Your task to perform on an android device: Show me the best basketball shoes on Nike.com Image 0: 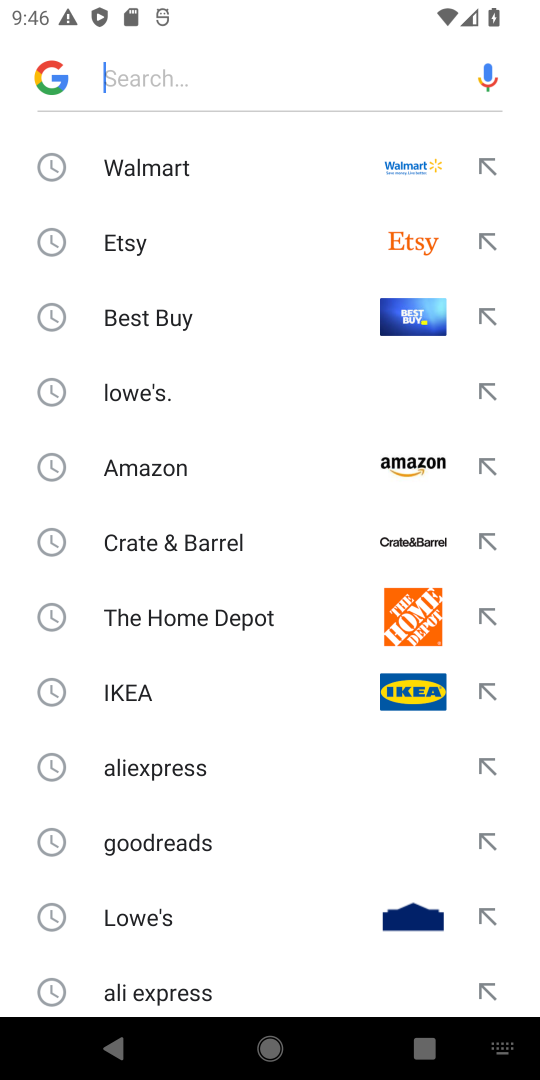
Step 0: type "Nike.com"
Your task to perform on an android device: Show me the best basketball shoes on Nike.com Image 1: 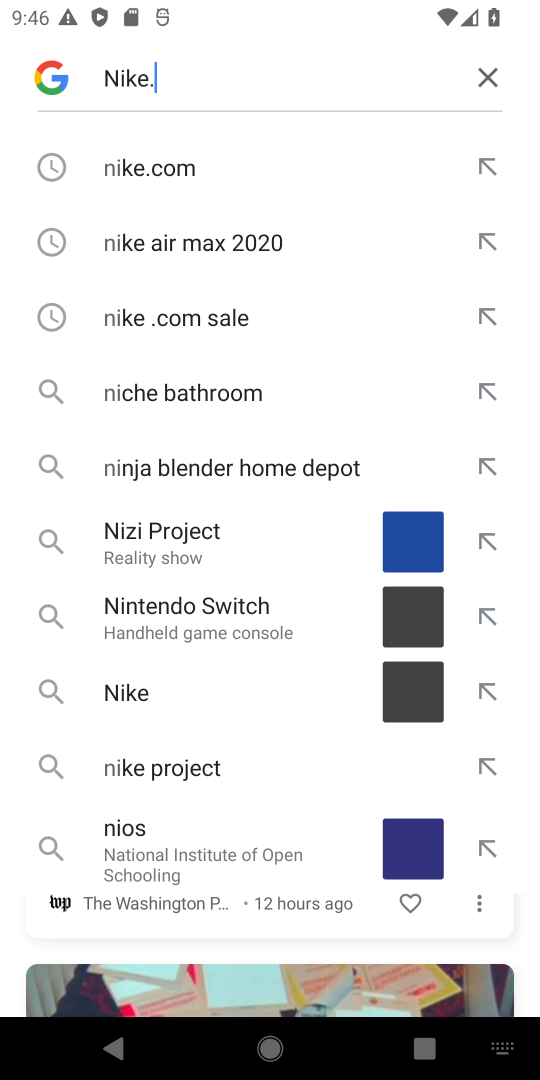
Step 1: press enter
Your task to perform on an android device: Show me the best basketball shoes on Nike.com Image 2: 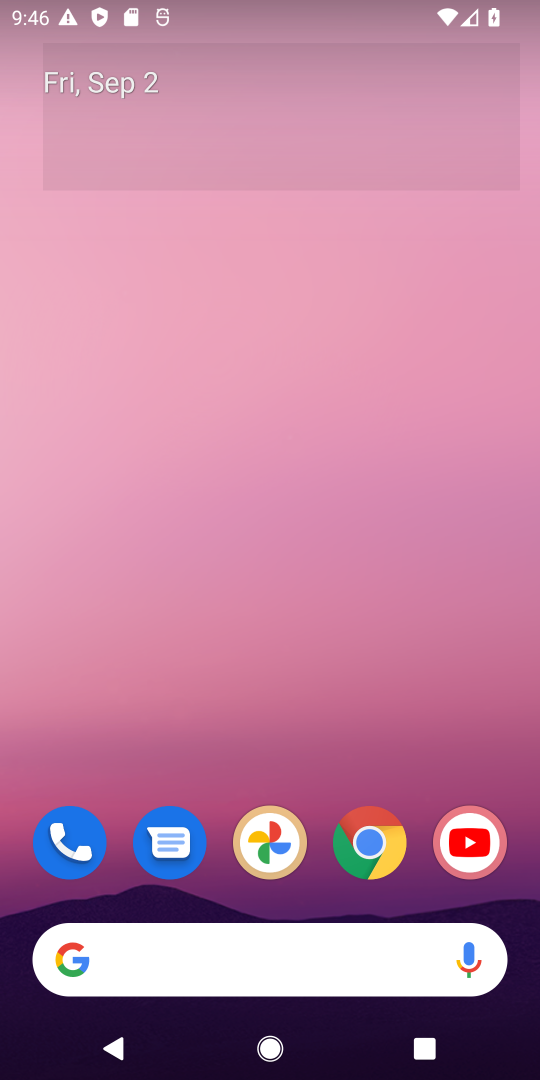
Step 2: drag from (262, 887) to (270, 289)
Your task to perform on an android device: Show me the best basketball shoes on Nike.com Image 3: 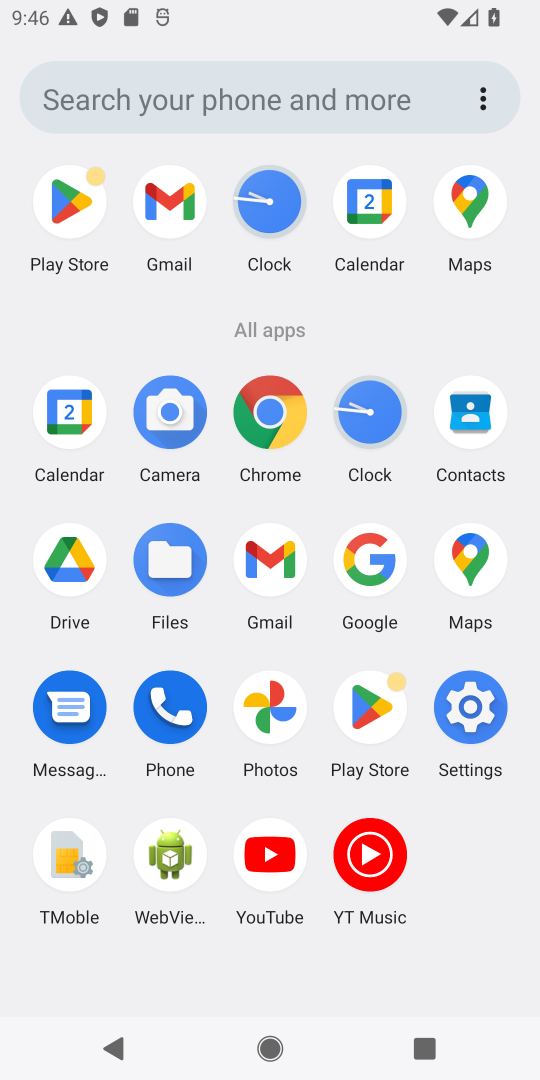
Step 3: click (280, 410)
Your task to perform on an android device: Show me the best basketball shoes on Nike.com Image 4: 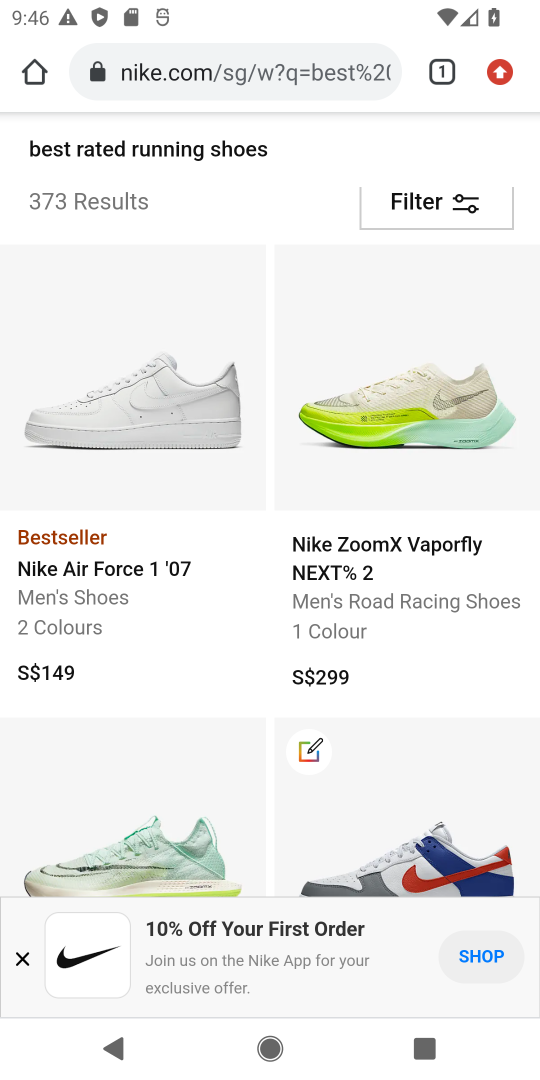
Step 4: drag from (217, 193) to (252, 518)
Your task to perform on an android device: Show me the best basketball shoes on Nike.com Image 5: 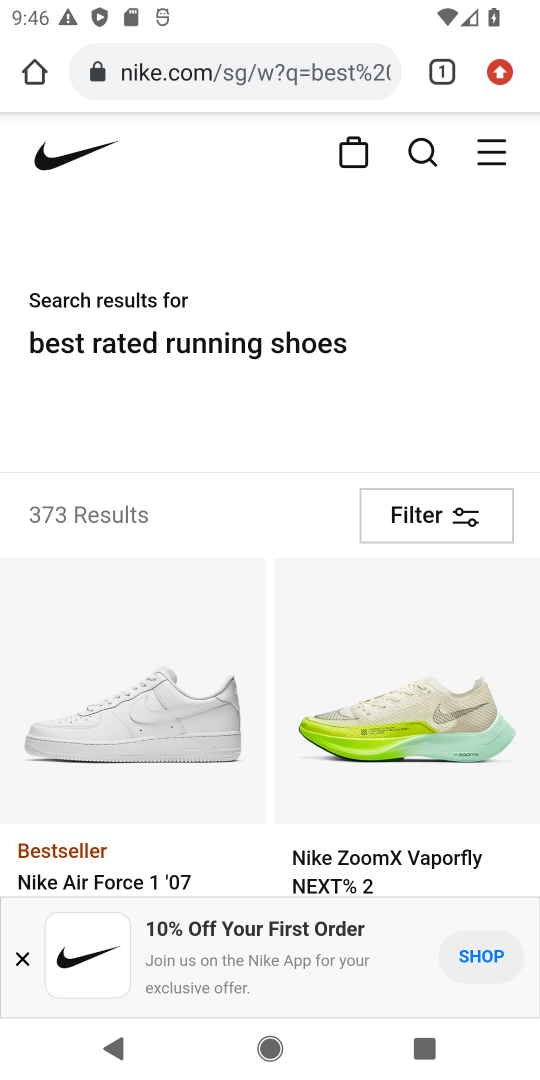
Step 5: drag from (227, 215) to (175, 615)
Your task to perform on an android device: Show me the best basketball shoes on Nike.com Image 6: 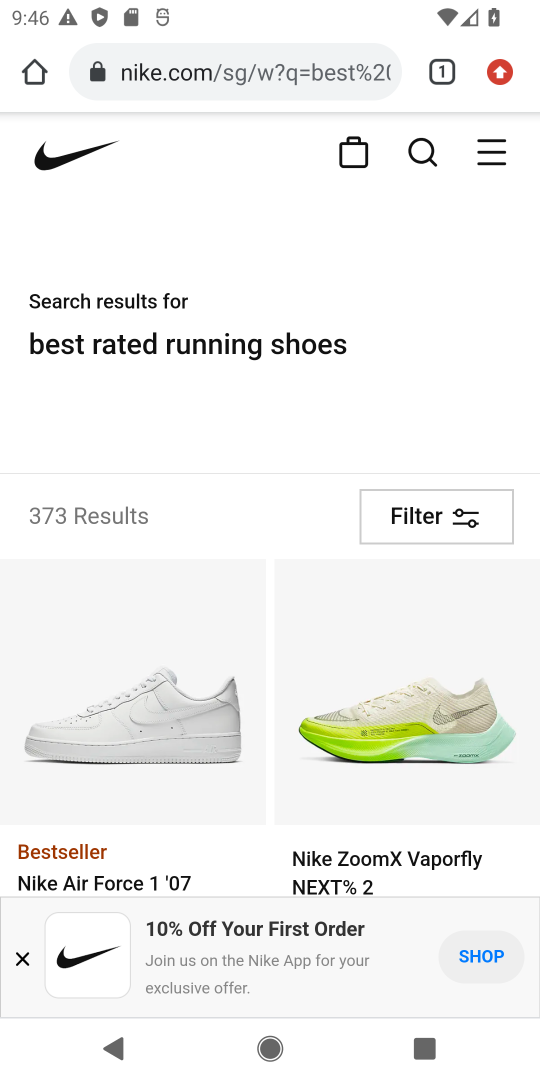
Step 6: click (409, 151)
Your task to perform on an android device: Show me the best basketball shoes on Nike.com Image 7: 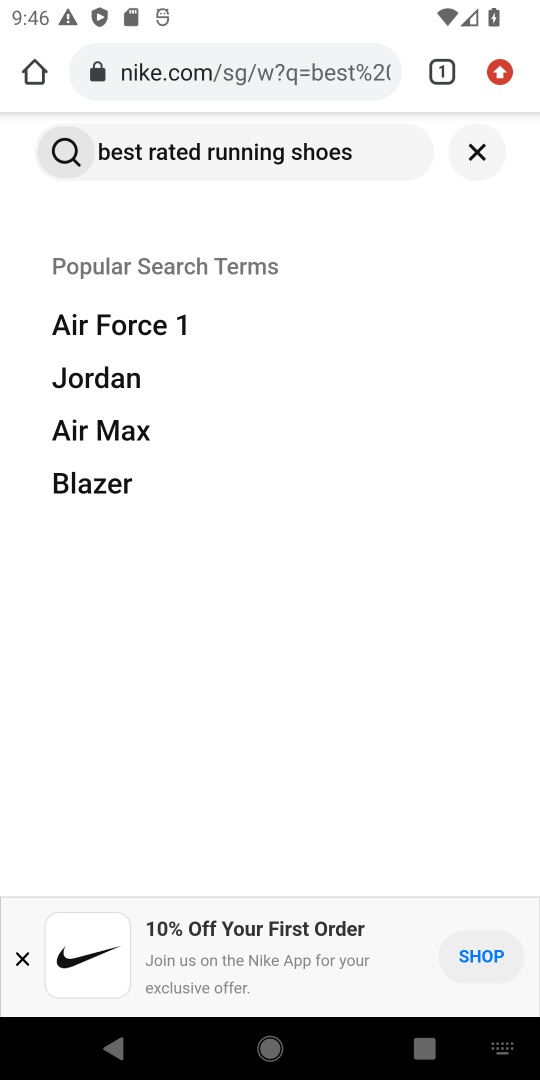
Step 7: click (481, 165)
Your task to perform on an android device: Show me the best basketball shoes on Nike.com Image 8: 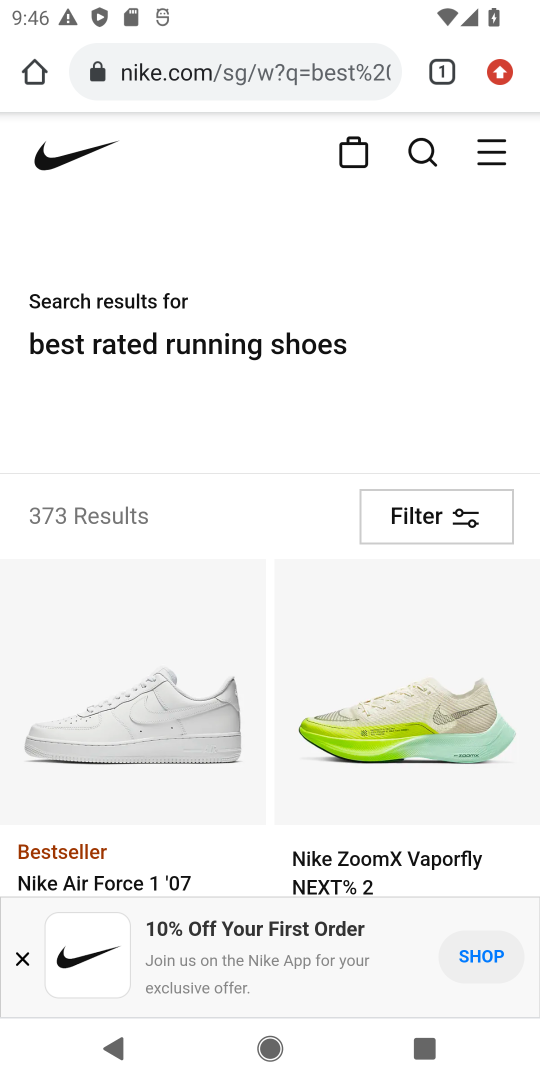
Step 8: type "best basketball shoes"
Your task to perform on an android device: Show me the best basketball shoes on Nike.com Image 9: 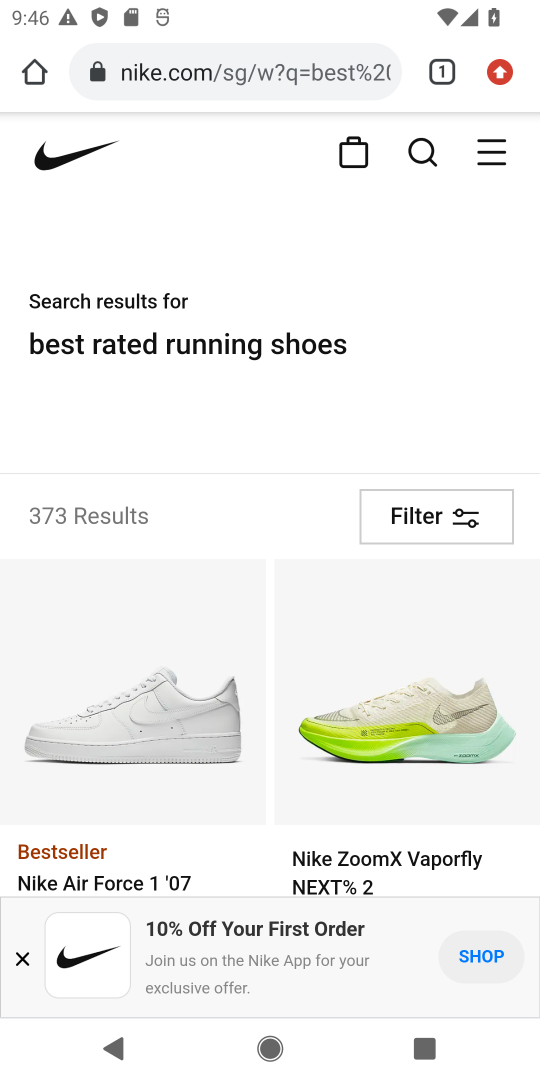
Step 9: press enter
Your task to perform on an android device: Show me the best basketball shoes on Nike.com Image 10: 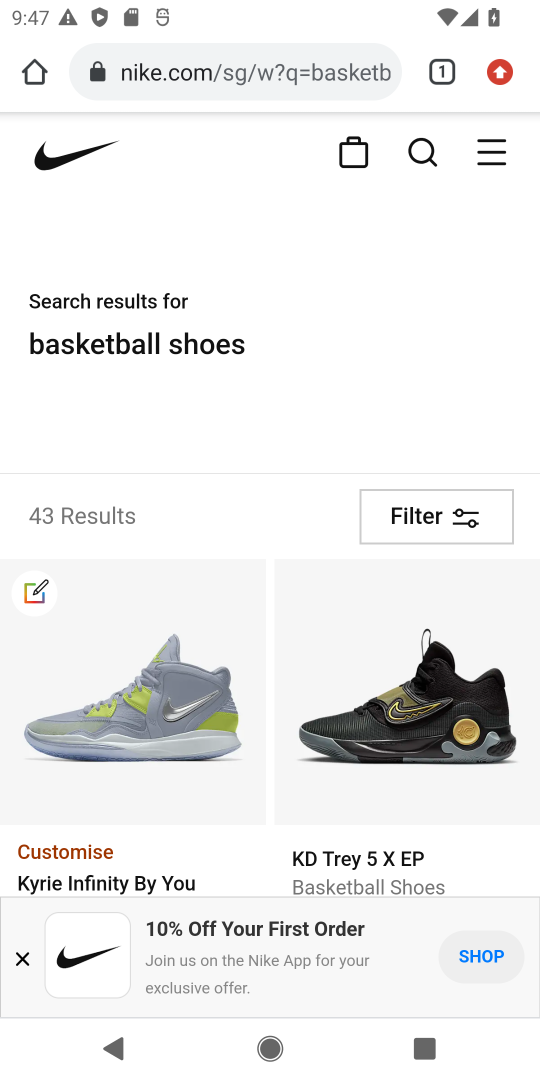
Step 10: task complete